Your task to perform on an android device: Go to sound settings Image 0: 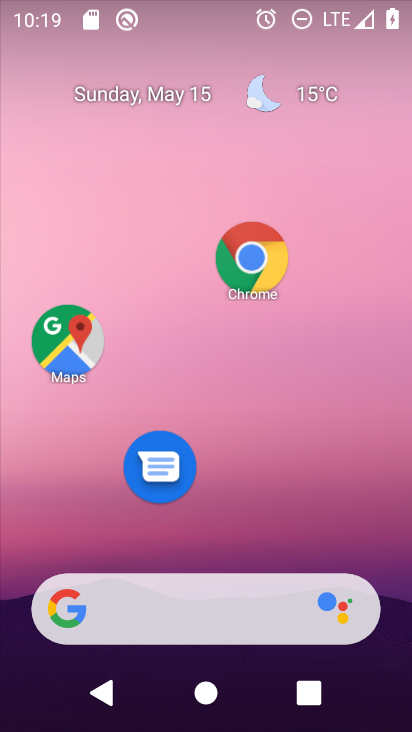
Step 0: drag from (252, 508) to (174, 100)
Your task to perform on an android device: Go to sound settings Image 1: 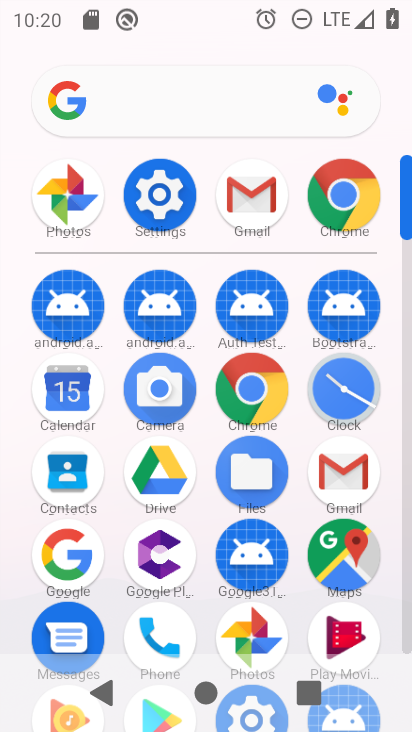
Step 1: click (155, 217)
Your task to perform on an android device: Go to sound settings Image 2: 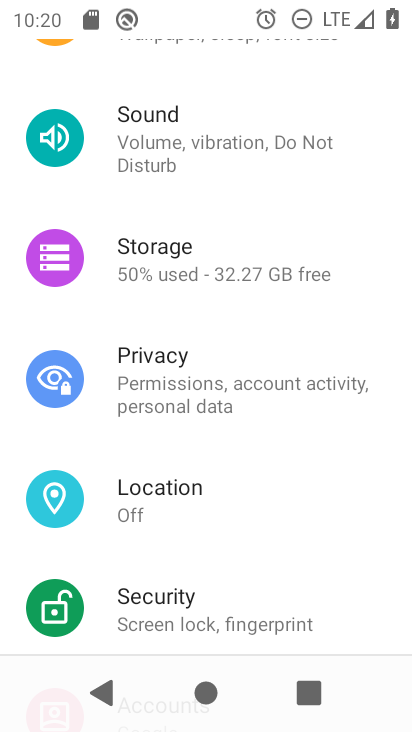
Step 2: click (163, 158)
Your task to perform on an android device: Go to sound settings Image 3: 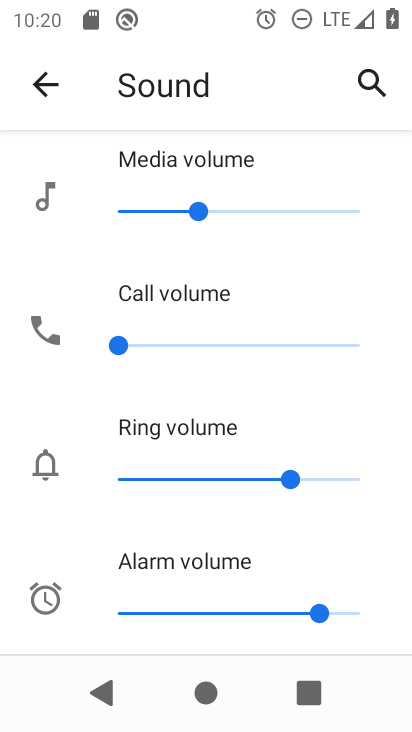
Step 3: task complete